Your task to perform on an android device: check data usage Image 0: 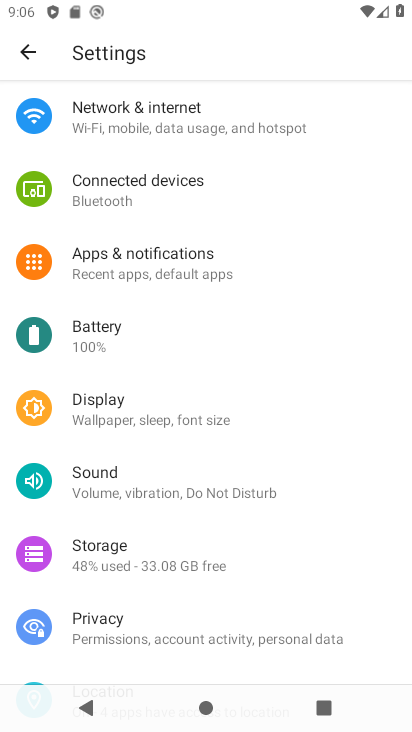
Step 0: press home button
Your task to perform on an android device: check data usage Image 1: 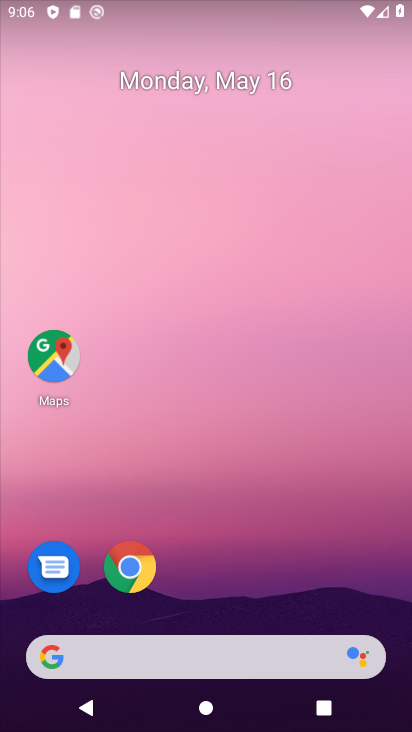
Step 1: drag from (209, 590) to (97, 92)
Your task to perform on an android device: check data usage Image 2: 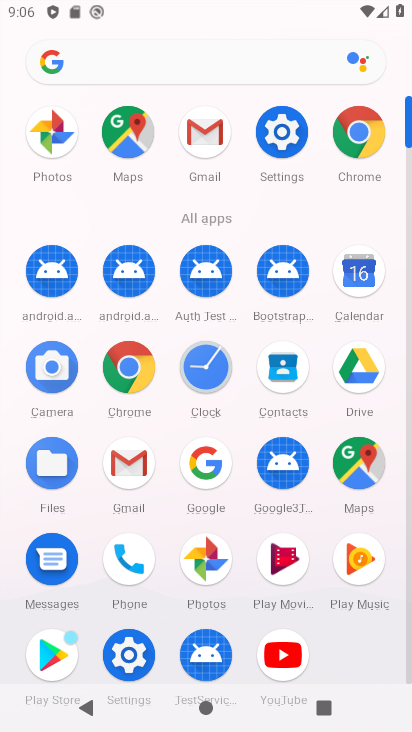
Step 2: click (287, 141)
Your task to perform on an android device: check data usage Image 3: 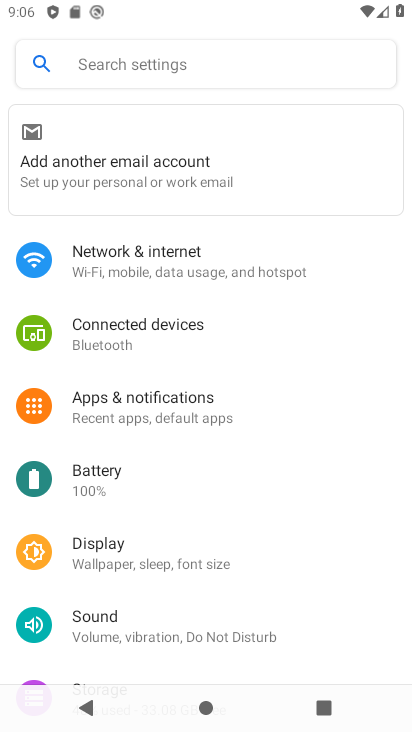
Step 3: click (233, 262)
Your task to perform on an android device: check data usage Image 4: 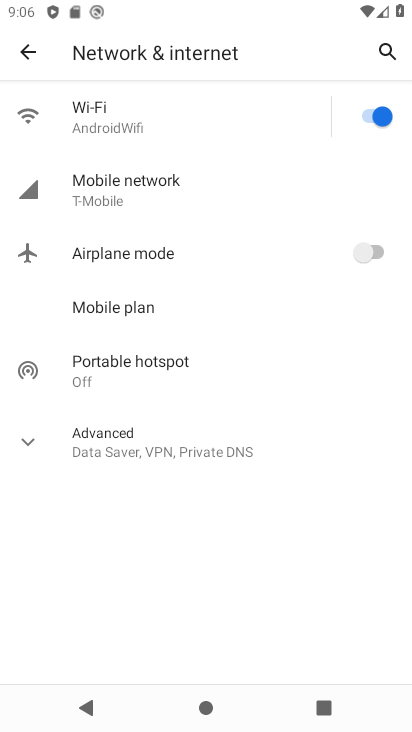
Step 4: click (155, 191)
Your task to perform on an android device: check data usage Image 5: 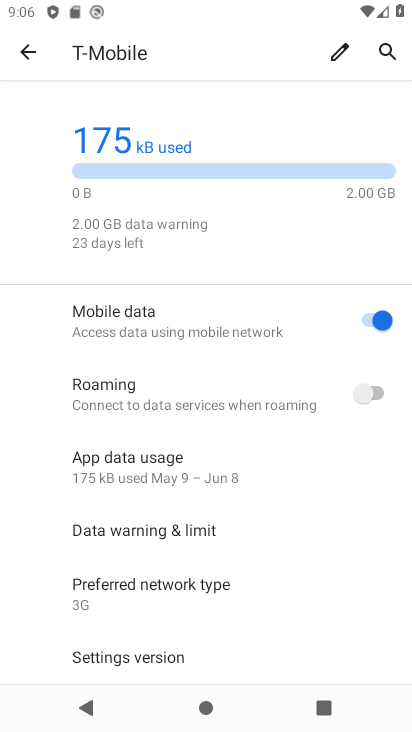
Step 5: task complete